Your task to perform on an android device: Go to privacy settings Image 0: 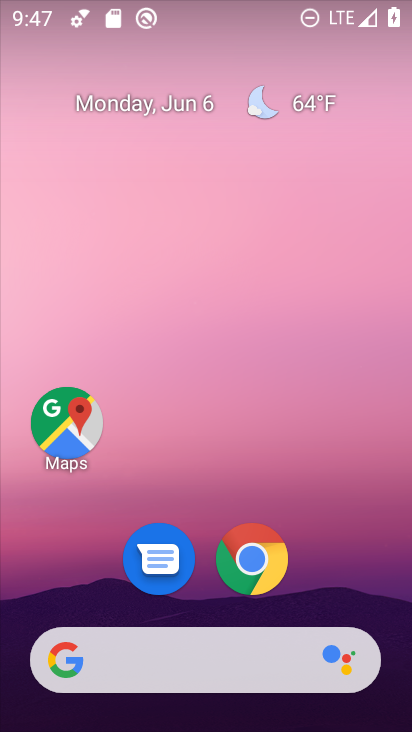
Step 0: drag from (229, 726) to (191, 76)
Your task to perform on an android device: Go to privacy settings Image 1: 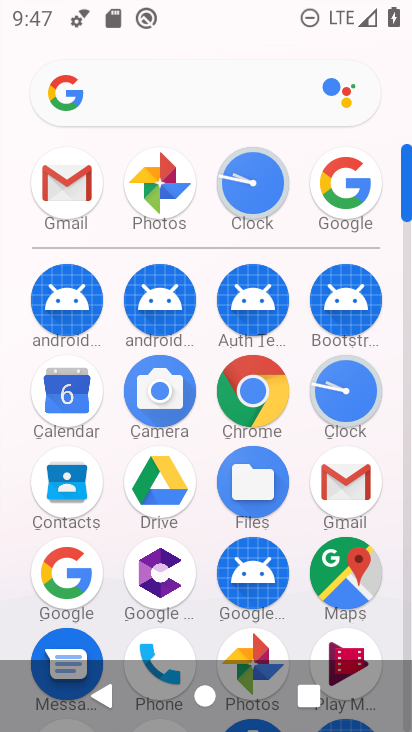
Step 1: drag from (211, 601) to (212, 239)
Your task to perform on an android device: Go to privacy settings Image 2: 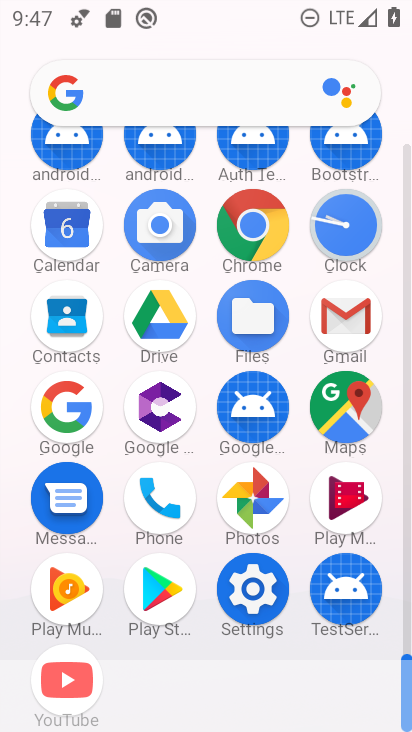
Step 2: click (248, 599)
Your task to perform on an android device: Go to privacy settings Image 3: 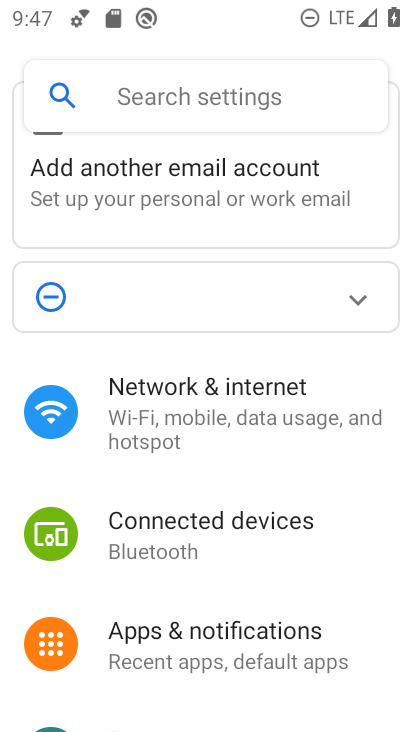
Step 3: drag from (203, 716) to (173, 346)
Your task to perform on an android device: Go to privacy settings Image 4: 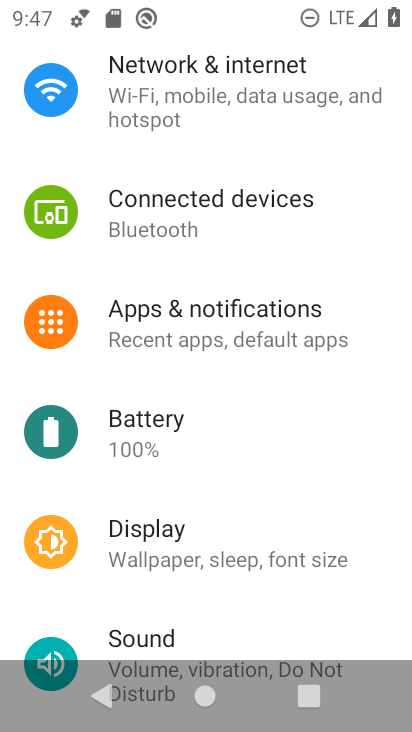
Step 4: drag from (174, 634) to (169, 261)
Your task to perform on an android device: Go to privacy settings Image 5: 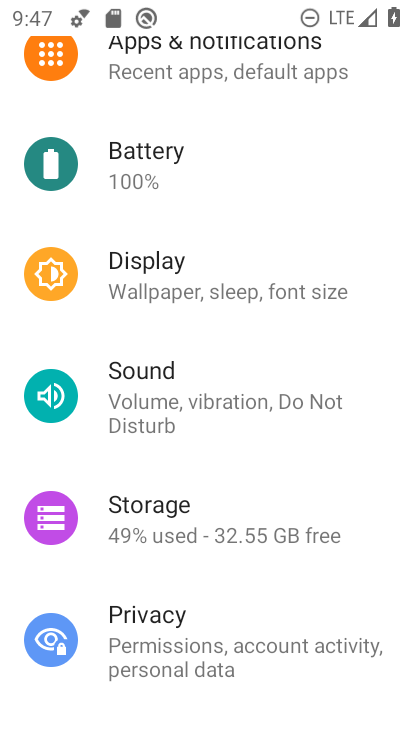
Step 5: click (165, 640)
Your task to perform on an android device: Go to privacy settings Image 6: 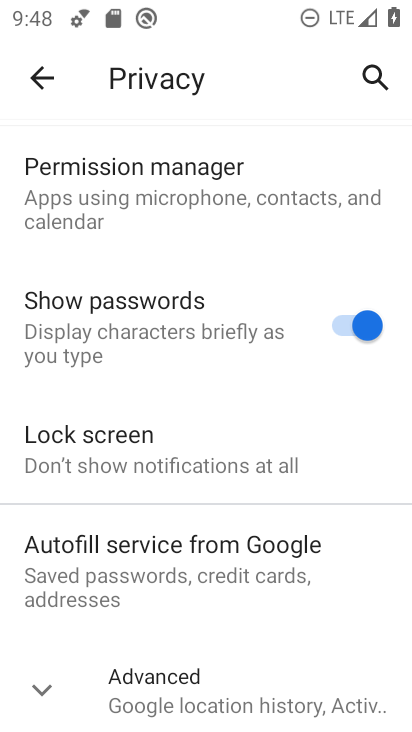
Step 6: task complete